Your task to perform on an android device: find photos in the google photos app Image 0: 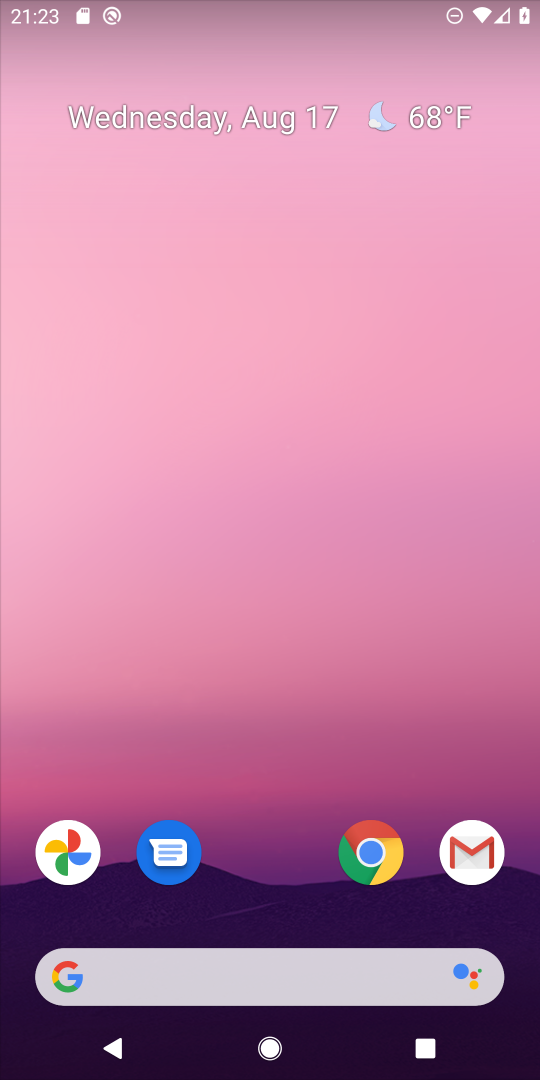
Step 0: click (65, 850)
Your task to perform on an android device: find photos in the google photos app Image 1: 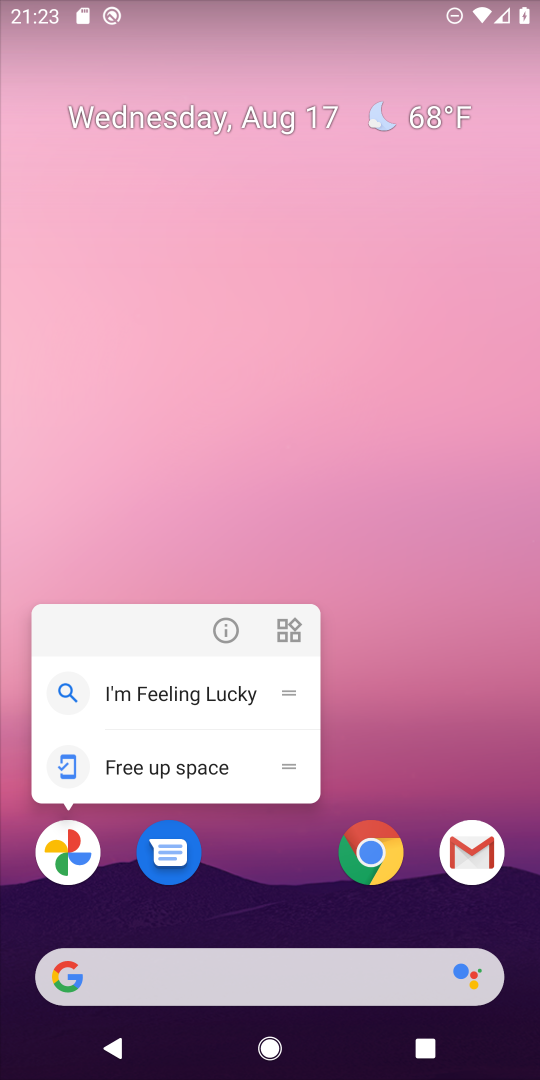
Step 1: click (65, 850)
Your task to perform on an android device: find photos in the google photos app Image 2: 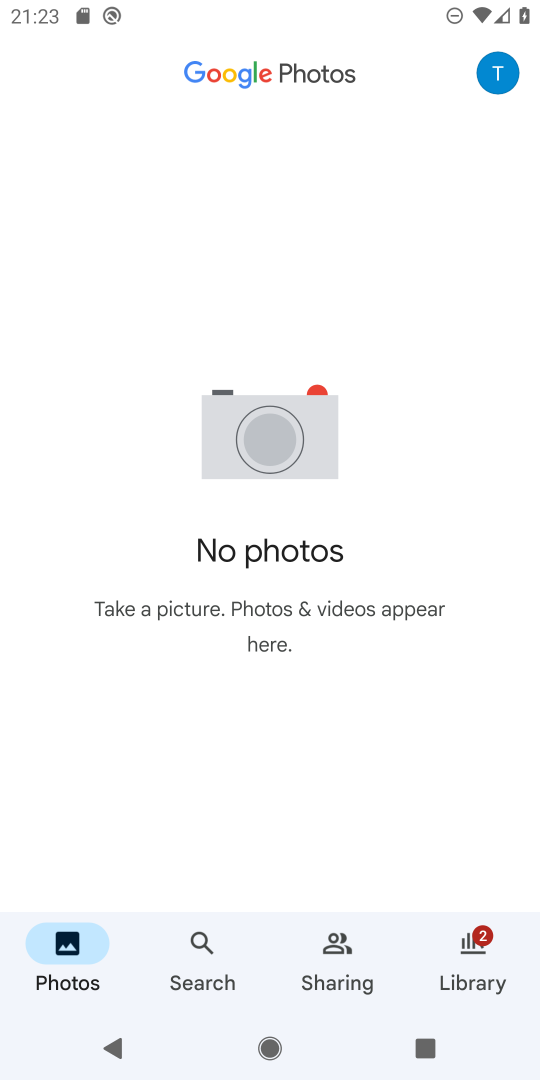
Step 2: click (194, 939)
Your task to perform on an android device: find photos in the google photos app Image 3: 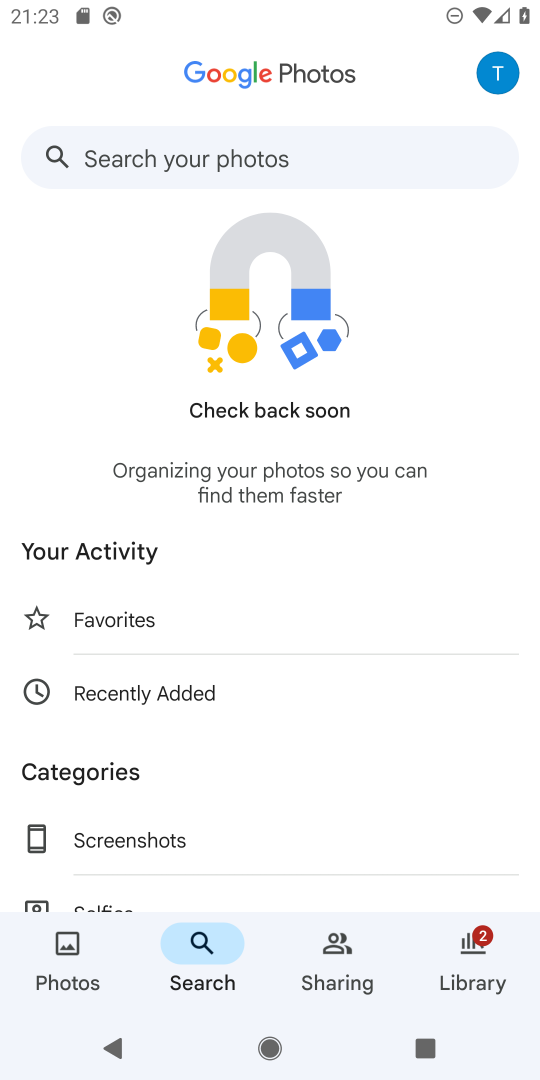
Step 3: task complete